Your task to perform on an android device: Go to notification settings Image 0: 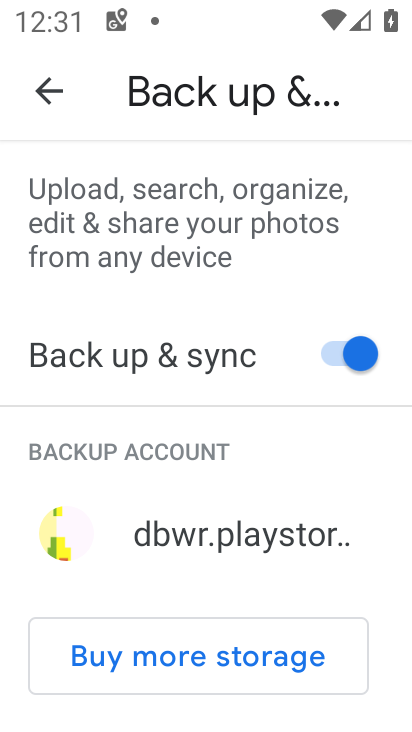
Step 0: press back button
Your task to perform on an android device: Go to notification settings Image 1: 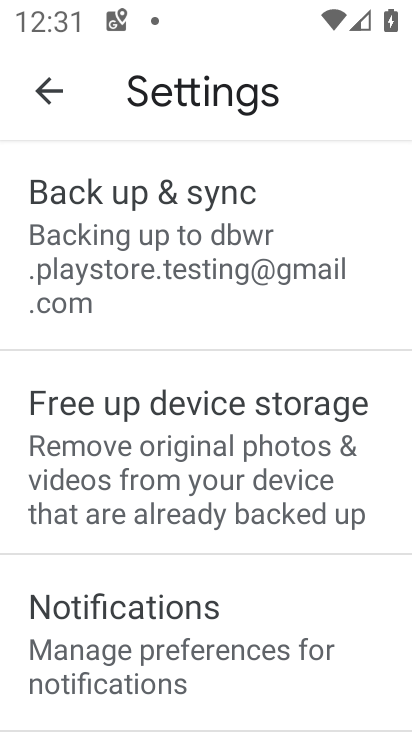
Step 1: press home button
Your task to perform on an android device: Go to notification settings Image 2: 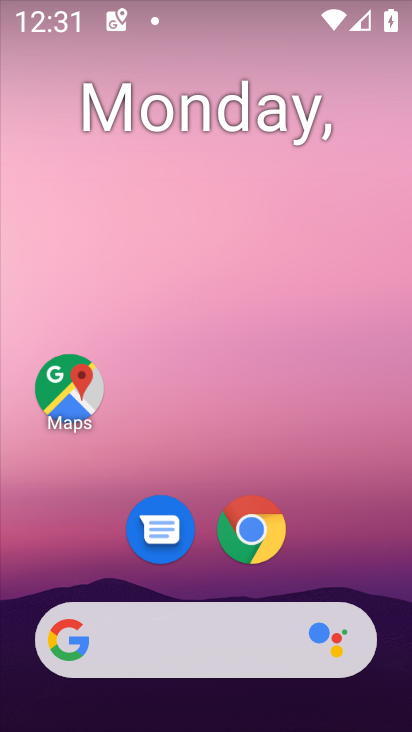
Step 2: drag from (156, 633) to (175, 87)
Your task to perform on an android device: Go to notification settings Image 3: 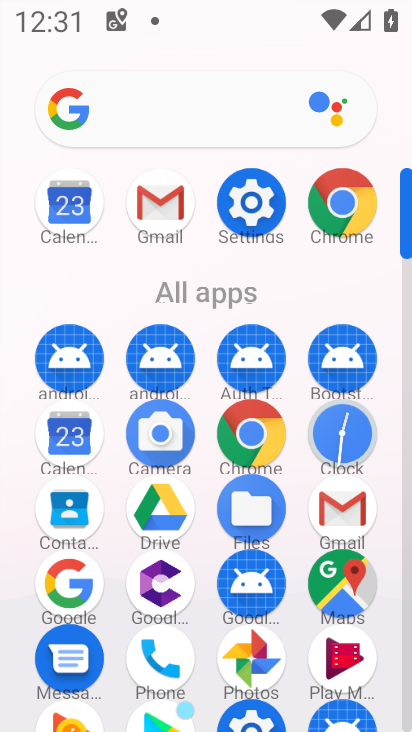
Step 3: click (254, 201)
Your task to perform on an android device: Go to notification settings Image 4: 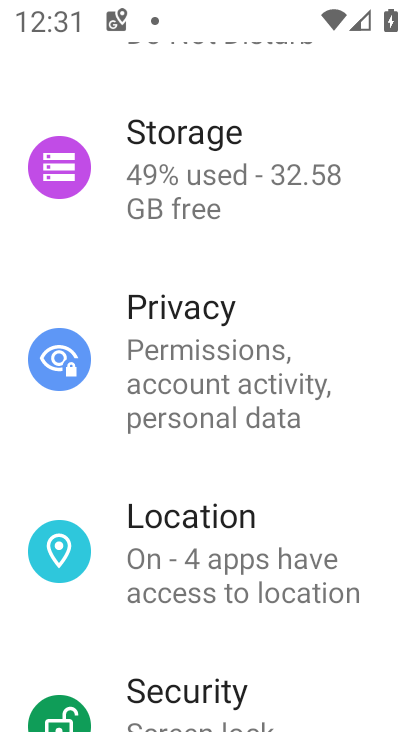
Step 4: drag from (177, 237) to (136, 730)
Your task to perform on an android device: Go to notification settings Image 5: 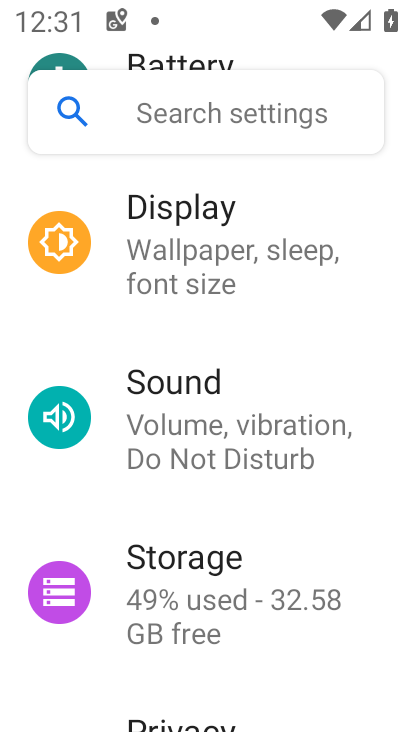
Step 5: drag from (161, 223) to (199, 392)
Your task to perform on an android device: Go to notification settings Image 6: 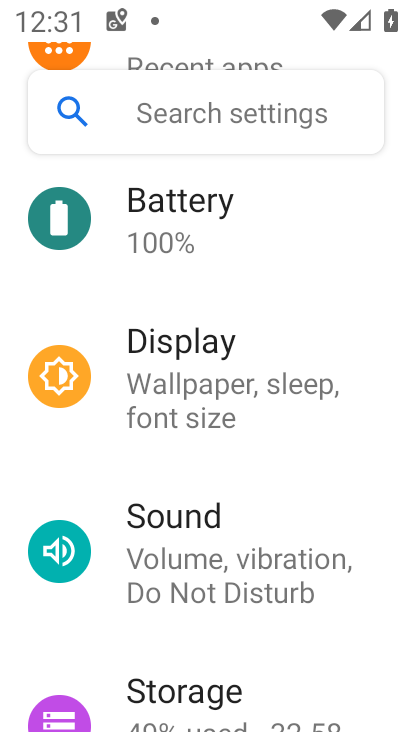
Step 6: drag from (166, 259) to (145, 726)
Your task to perform on an android device: Go to notification settings Image 7: 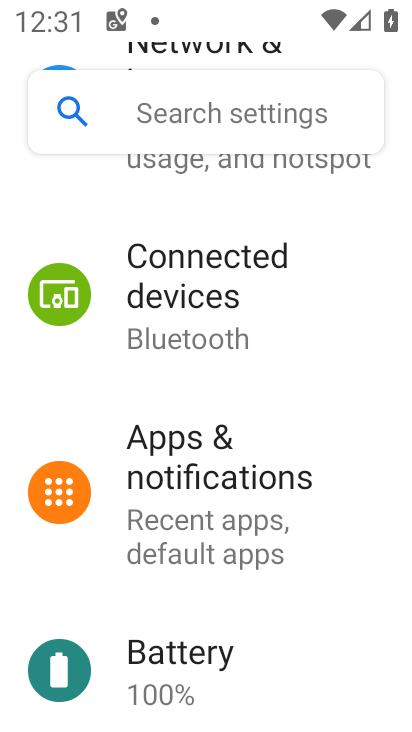
Step 7: click (151, 468)
Your task to perform on an android device: Go to notification settings Image 8: 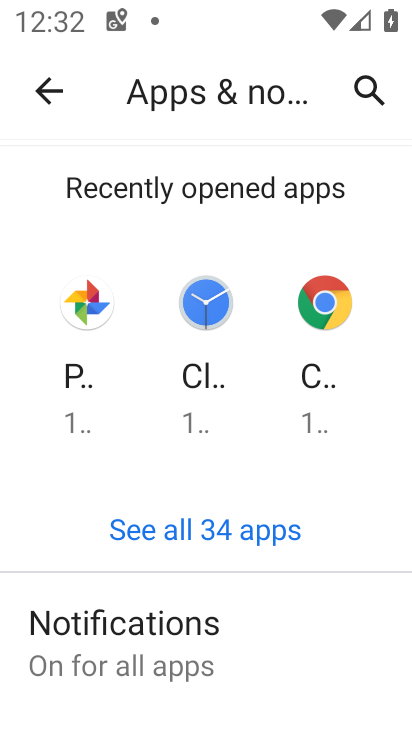
Step 8: task complete